Your task to perform on an android device: change the clock display to digital Image 0: 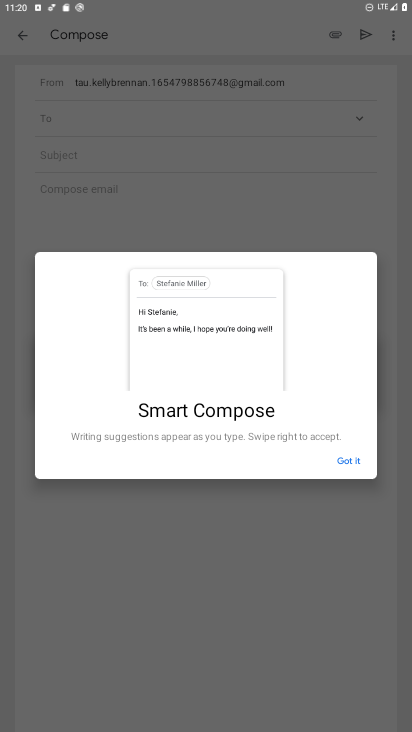
Step 0: press home button
Your task to perform on an android device: change the clock display to digital Image 1: 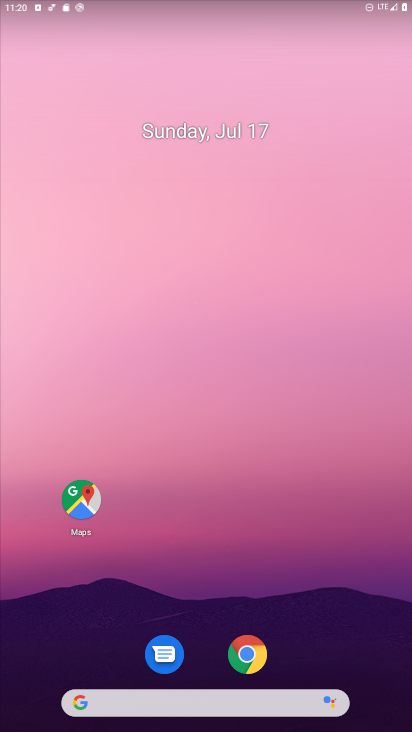
Step 1: drag from (203, 647) to (203, 272)
Your task to perform on an android device: change the clock display to digital Image 2: 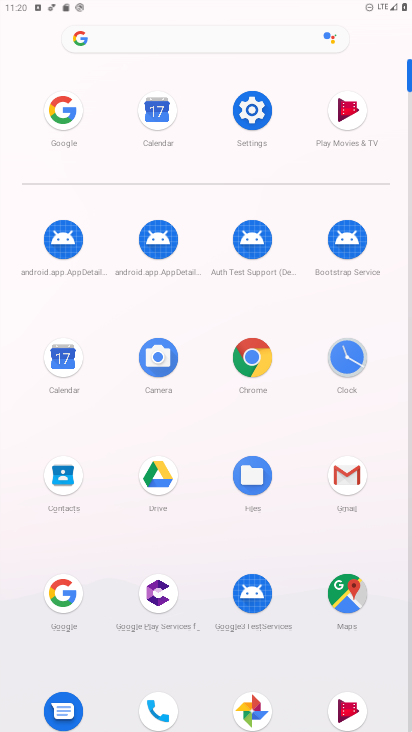
Step 2: click (349, 364)
Your task to perform on an android device: change the clock display to digital Image 3: 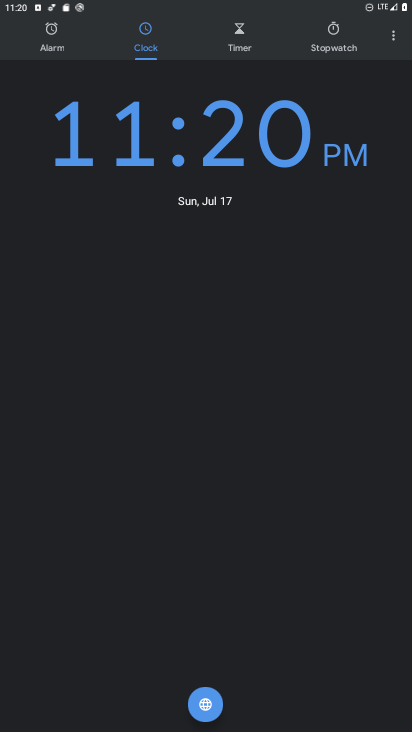
Step 3: click (397, 33)
Your task to perform on an android device: change the clock display to digital Image 4: 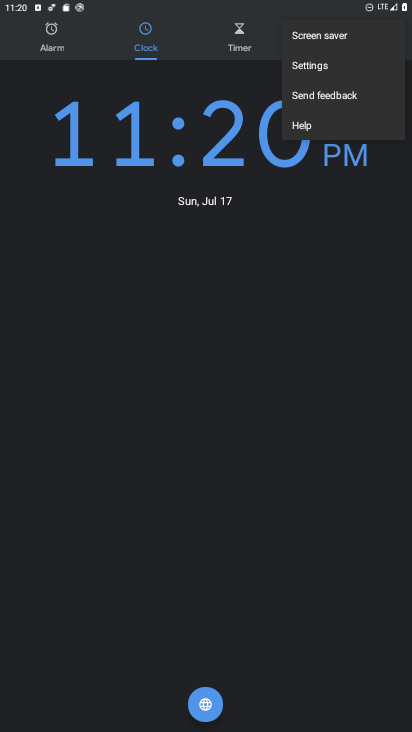
Step 4: click (334, 62)
Your task to perform on an android device: change the clock display to digital Image 5: 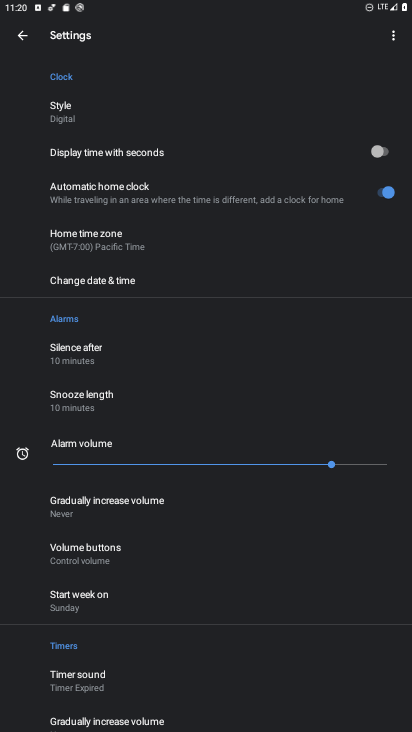
Step 5: click (120, 107)
Your task to perform on an android device: change the clock display to digital Image 6: 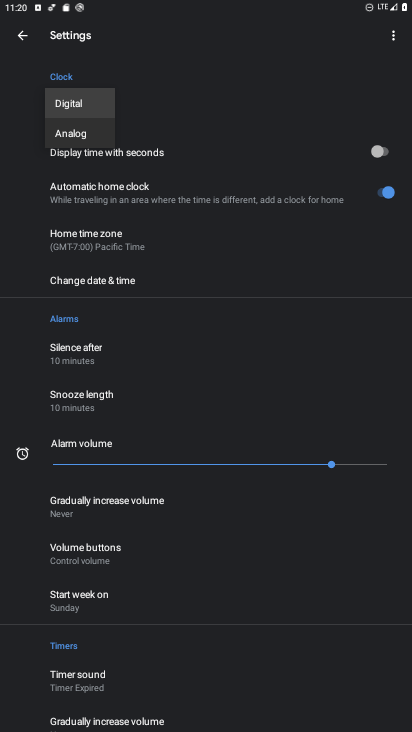
Step 6: task complete